Your task to perform on an android device: Show me recent news Image 0: 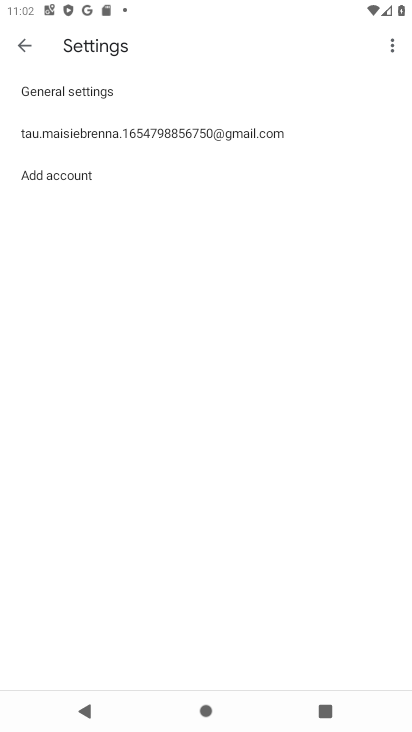
Step 0: press home button
Your task to perform on an android device: Show me recent news Image 1: 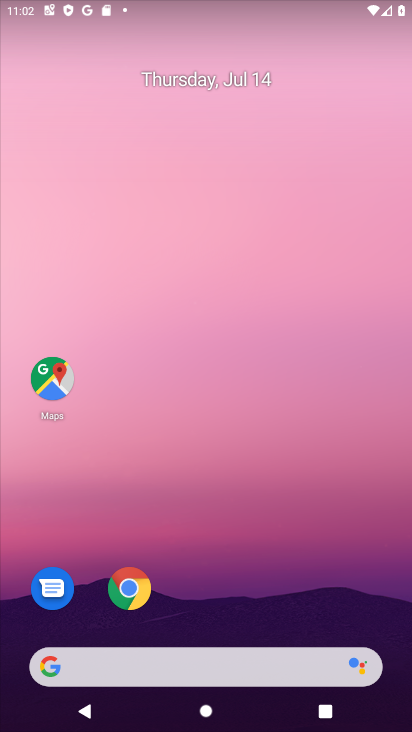
Step 1: click (176, 659)
Your task to perform on an android device: Show me recent news Image 2: 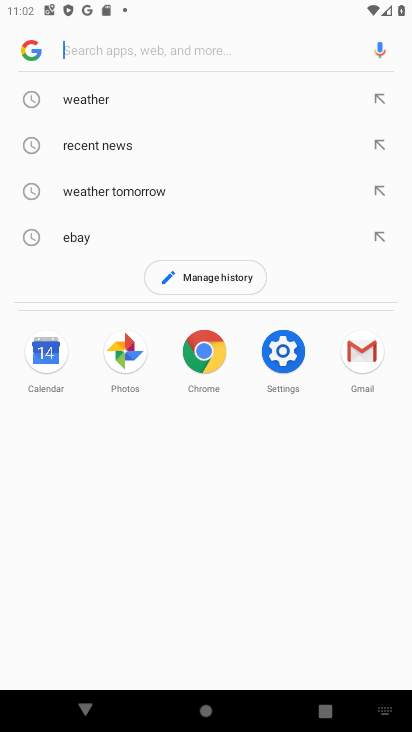
Step 2: click (87, 146)
Your task to perform on an android device: Show me recent news Image 3: 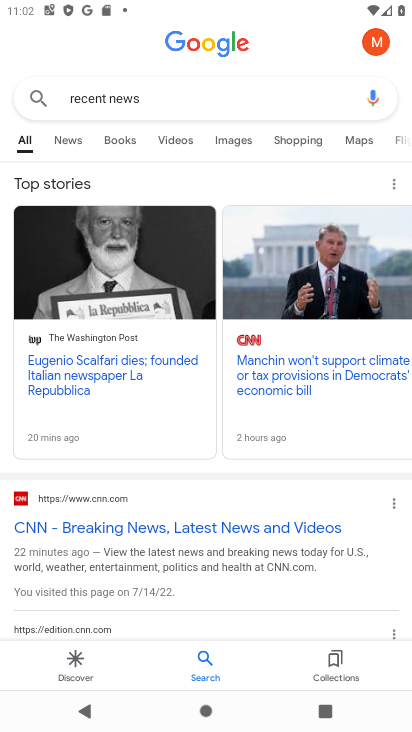
Step 3: click (72, 139)
Your task to perform on an android device: Show me recent news Image 4: 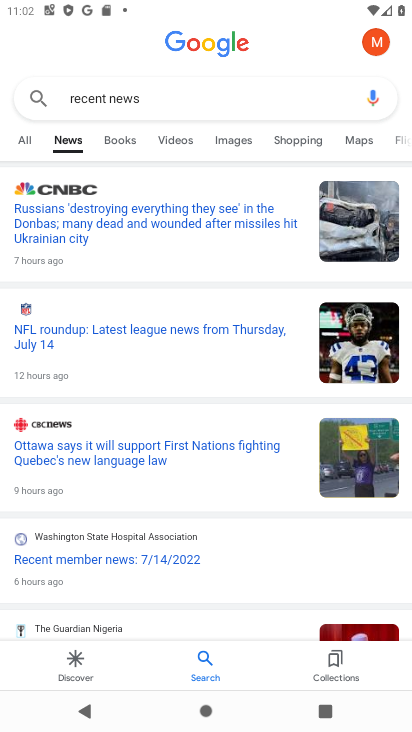
Step 4: task complete